Your task to perform on an android device: Open wifi settings Image 0: 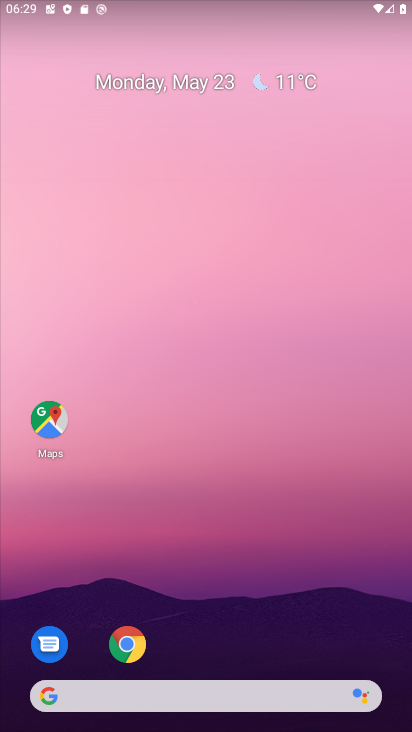
Step 0: drag from (214, 664) to (161, 183)
Your task to perform on an android device: Open wifi settings Image 1: 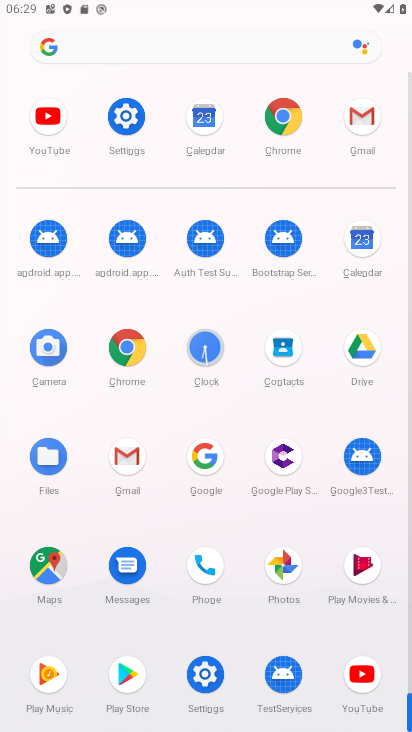
Step 1: click (122, 125)
Your task to perform on an android device: Open wifi settings Image 2: 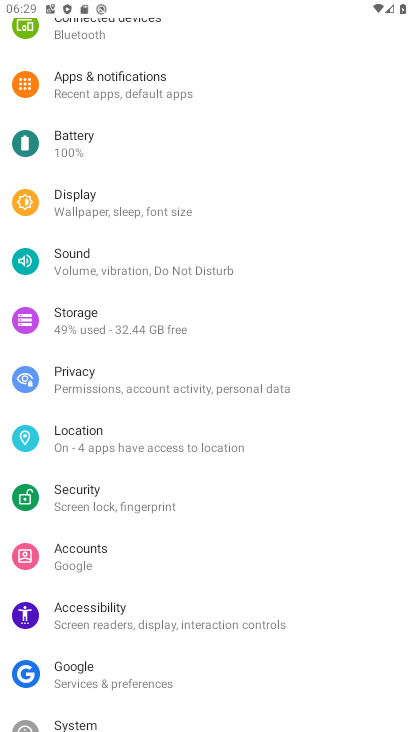
Step 2: drag from (238, 131) to (212, 509)
Your task to perform on an android device: Open wifi settings Image 3: 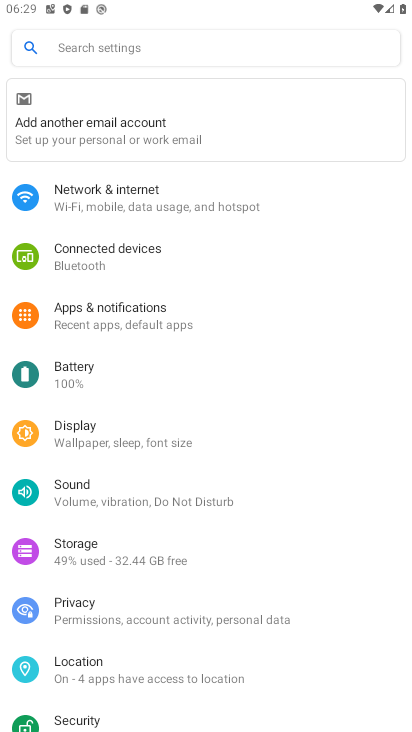
Step 3: click (123, 208)
Your task to perform on an android device: Open wifi settings Image 4: 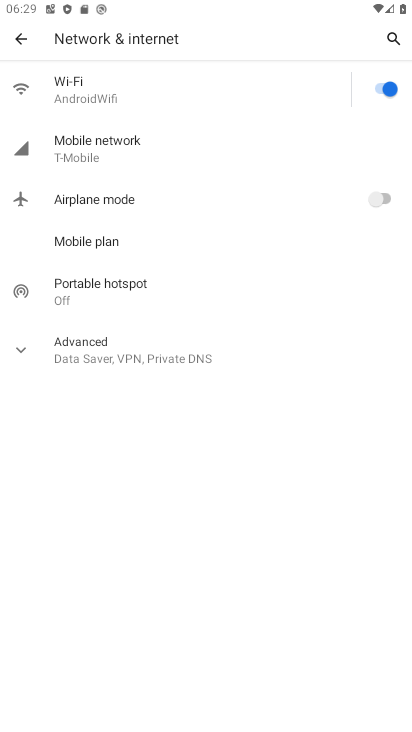
Step 4: click (129, 85)
Your task to perform on an android device: Open wifi settings Image 5: 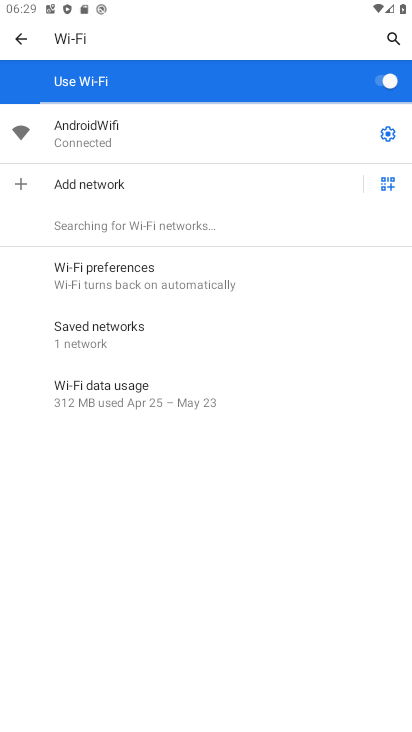
Step 5: task complete